Your task to perform on an android device: turn on data saver in the chrome app Image 0: 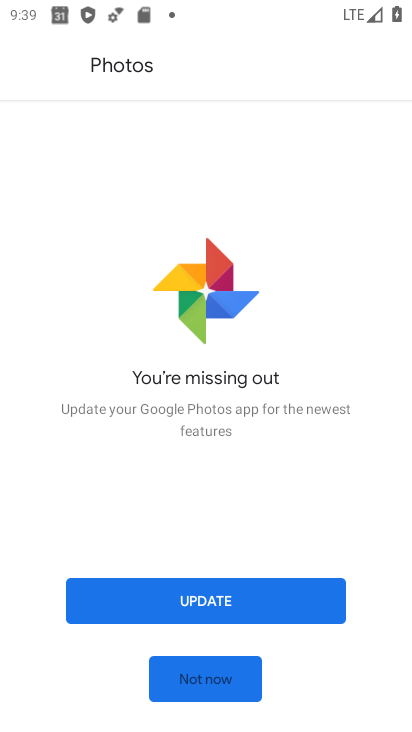
Step 0: press home button
Your task to perform on an android device: turn on data saver in the chrome app Image 1: 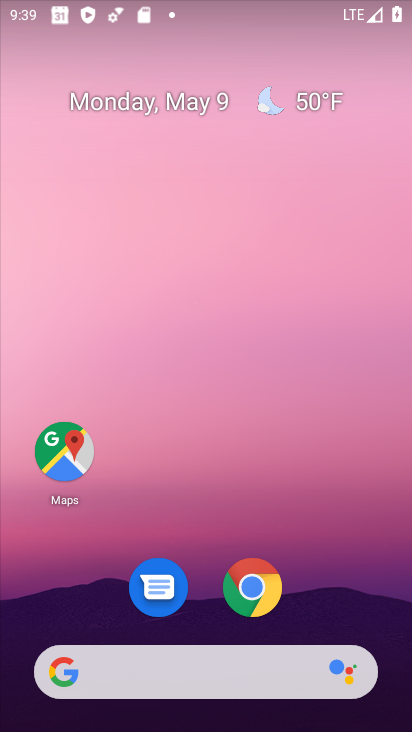
Step 1: click (252, 586)
Your task to perform on an android device: turn on data saver in the chrome app Image 2: 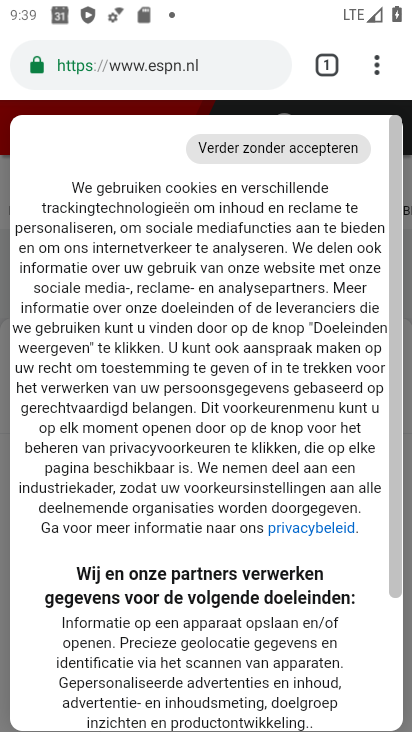
Step 2: click (380, 70)
Your task to perform on an android device: turn on data saver in the chrome app Image 3: 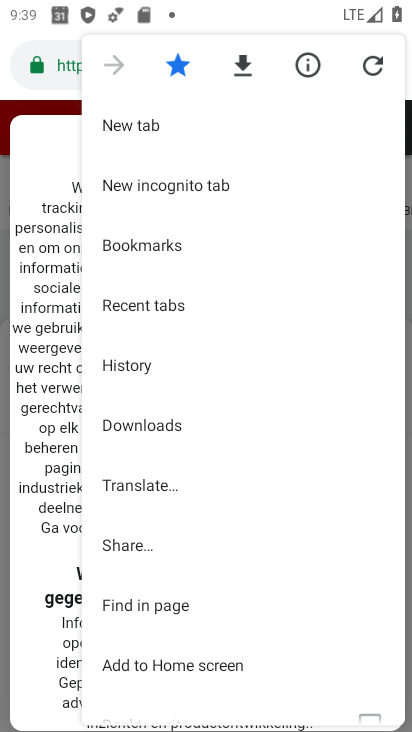
Step 3: drag from (179, 676) to (183, 195)
Your task to perform on an android device: turn on data saver in the chrome app Image 4: 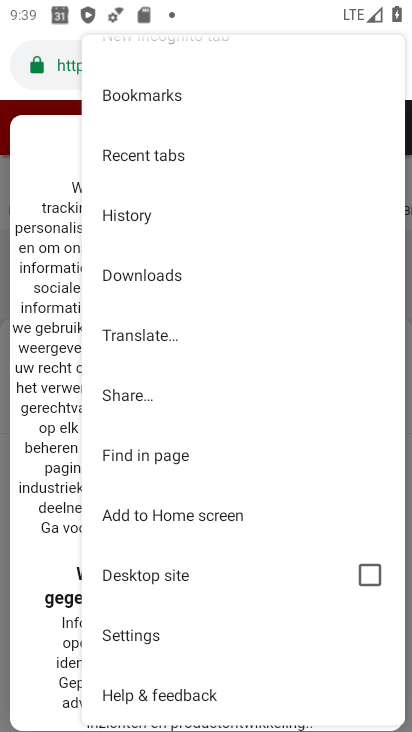
Step 4: click (130, 634)
Your task to perform on an android device: turn on data saver in the chrome app Image 5: 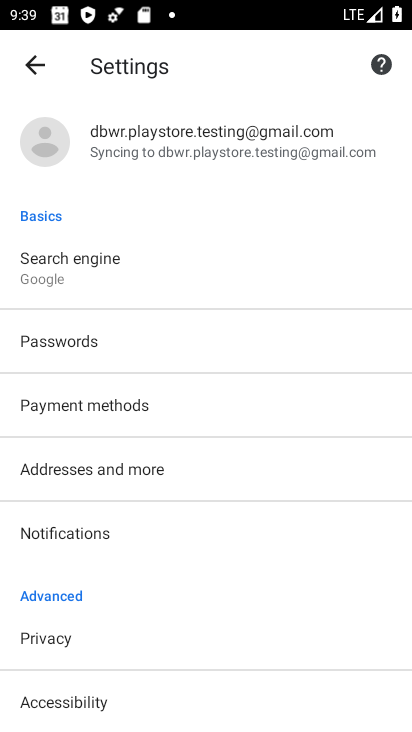
Step 5: drag from (157, 683) to (154, 306)
Your task to perform on an android device: turn on data saver in the chrome app Image 6: 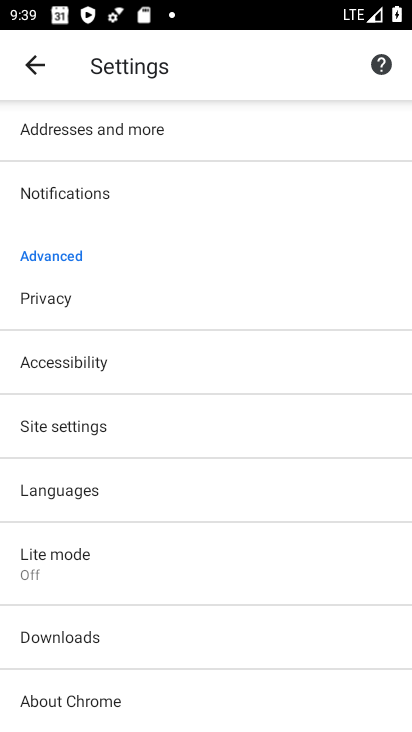
Step 6: click (61, 548)
Your task to perform on an android device: turn on data saver in the chrome app Image 7: 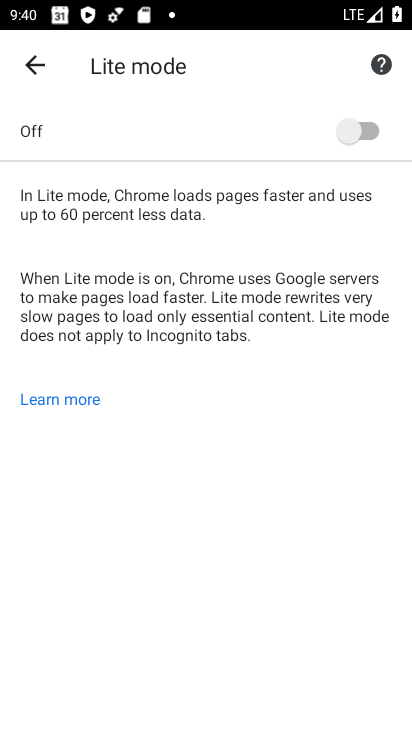
Step 7: click (364, 129)
Your task to perform on an android device: turn on data saver in the chrome app Image 8: 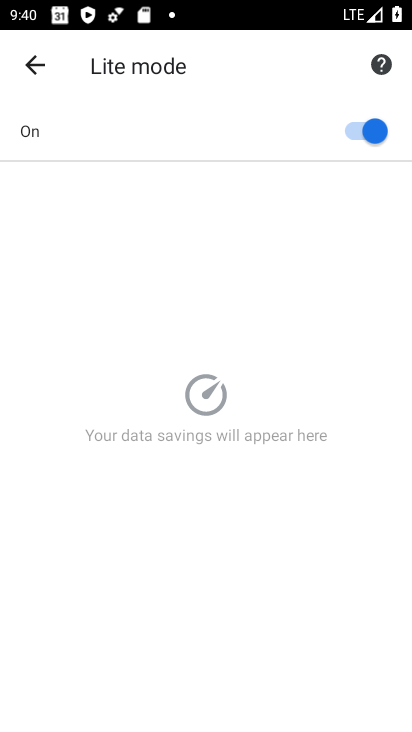
Step 8: task complete